Your task to perform on an android device: open a new tab in the chrome app Image 0: 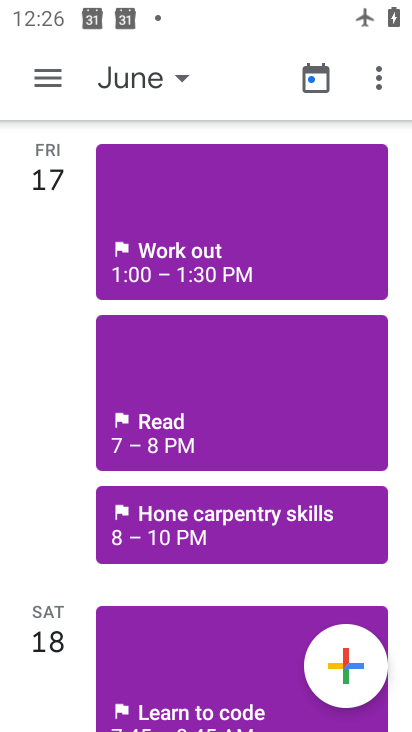
Step 0: press home button
Your task to perform on an android device: open a new tab in the chrome app Image 1: 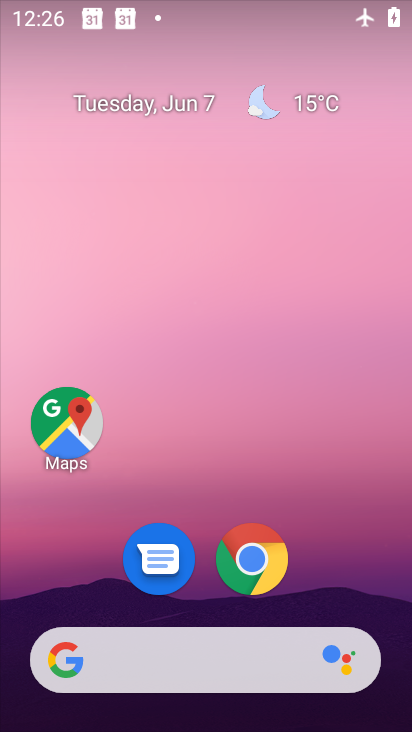
Step 1: click (250, 558)
Your task to perform on an android device: open a new tab in the chrome app Image 2: 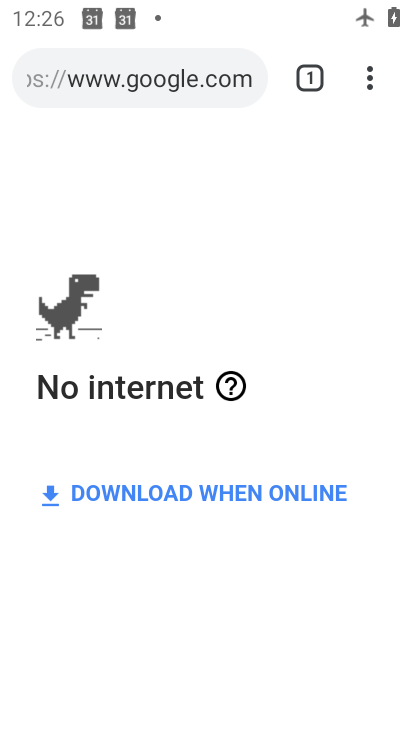
Step 2: click (365, 85)
Your task to perform on an android device: open a new tab in the chrome app Image 3: 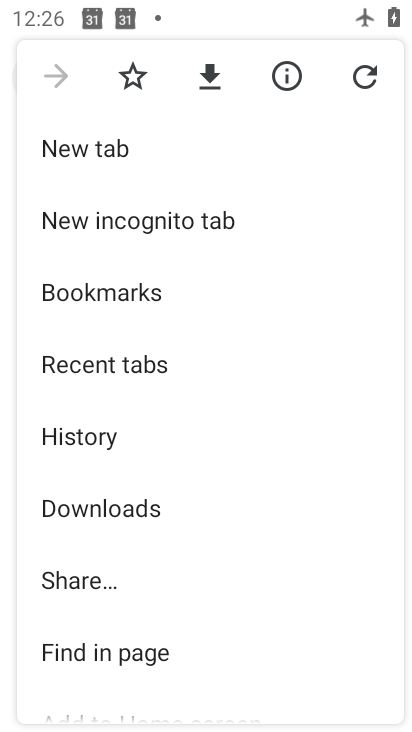
Step 3: click (106, 150)
Your task to perform on an android device: open a new tab in the chrome app Image 4: 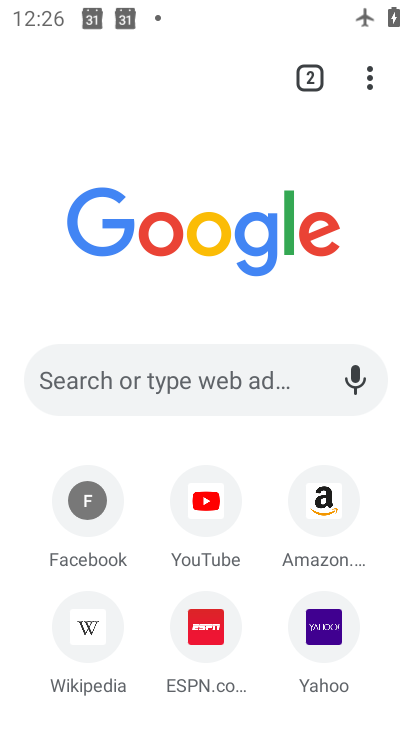
Step 4: task complete